Your task to perform on an android device: remove spam from my inbox in the gmail app Image 0: 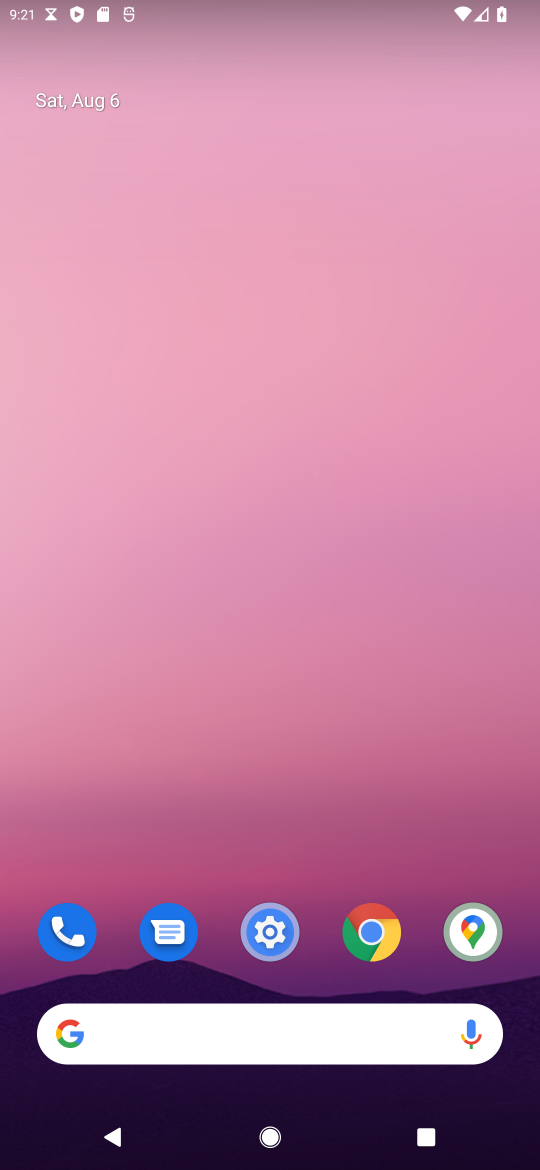
Step 0: drag from (250, 1041) to (357, 217)
Your task to perform on an android device: remove spam from my inbox in the gmail app Image 1: 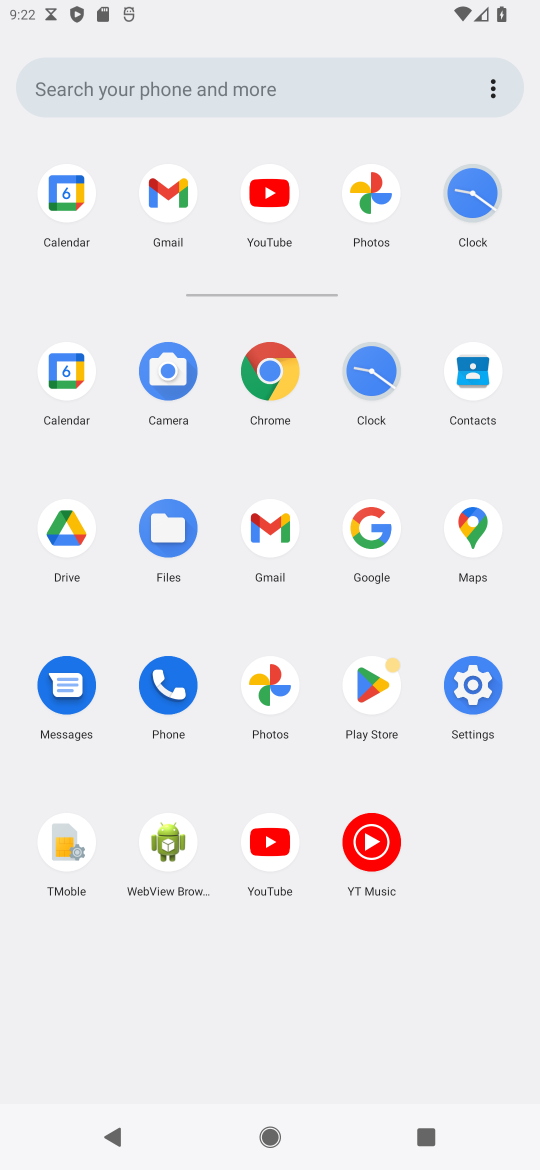
Step 1: click (270, 527)
Your task to perform on an android device: remove spam from my inbox in the gmail app Image 2: 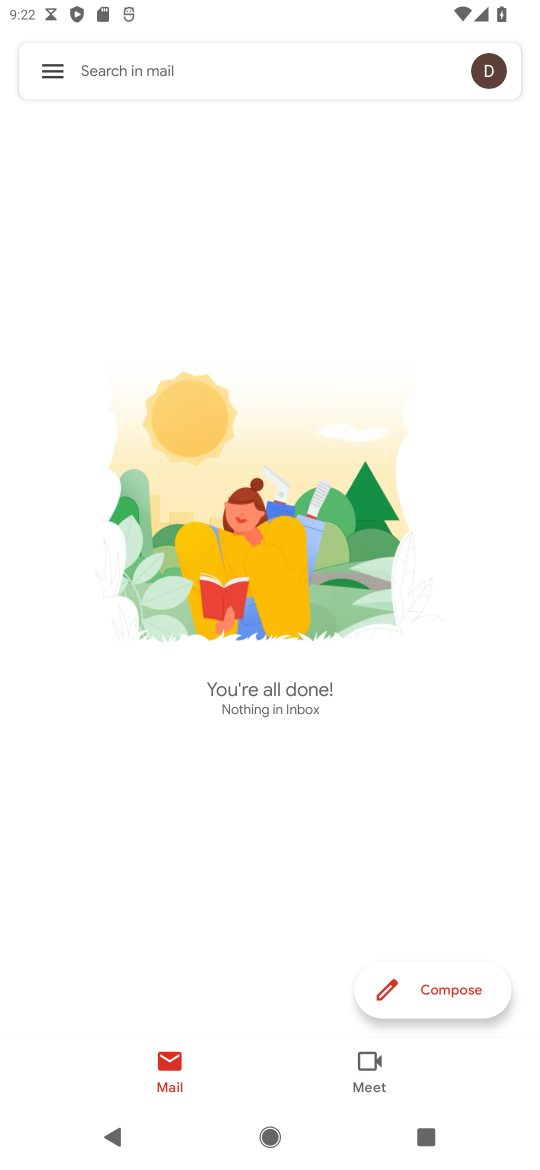
Step 2: click (54, 73)
Your task to perform on an android device: remove spam from my inbox in the gmail app Image 3: 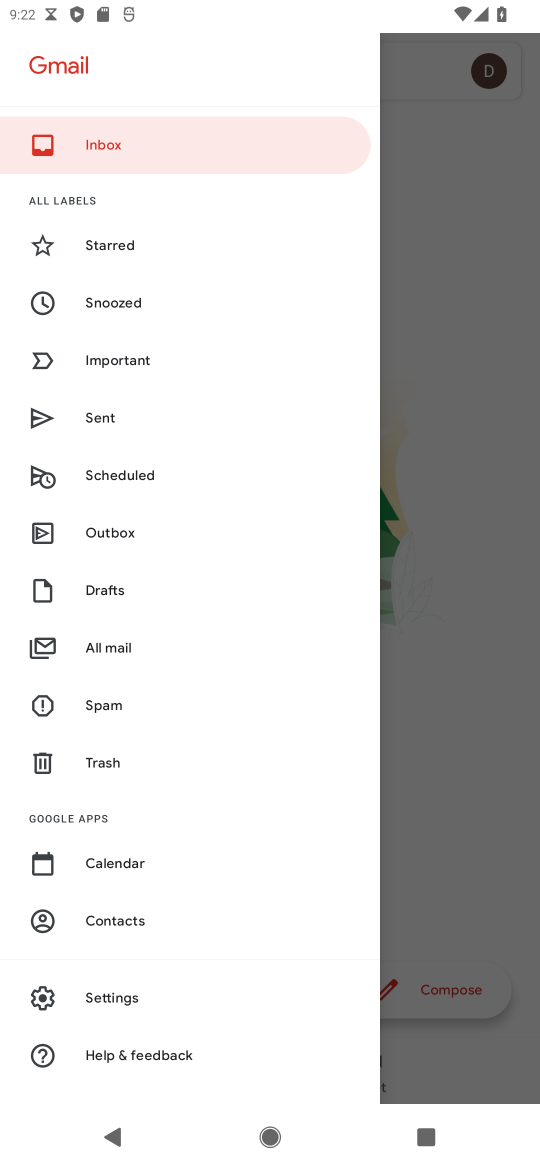
Step 3: click (116, 707)
Your task to perform on an android device: remove spam from my inbox in the gmail app Image 4: 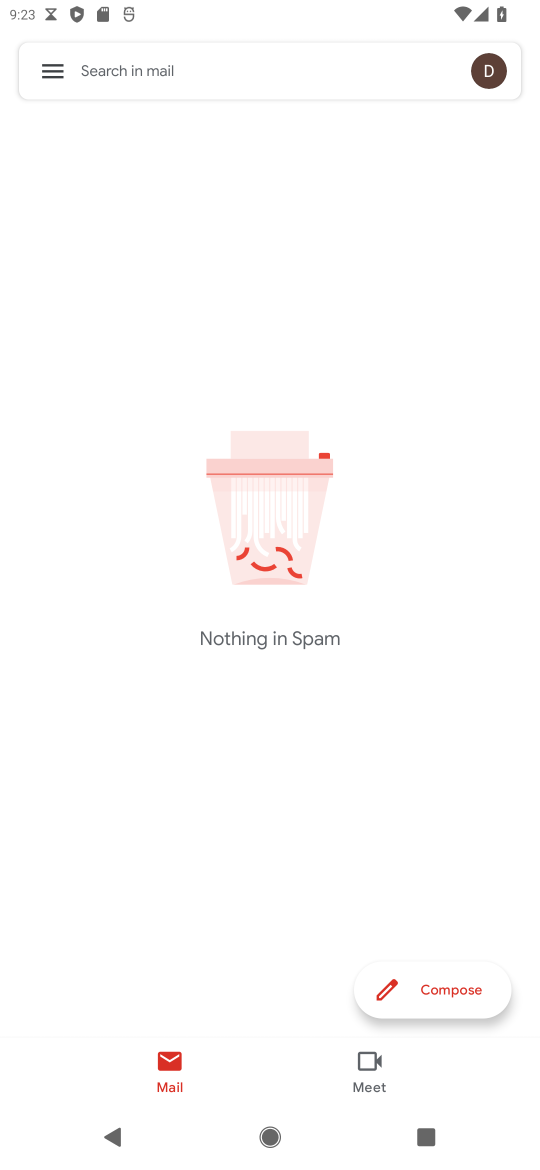
Step 4: task complete